Your task to perform on an android device: What's the weather? Image 0: 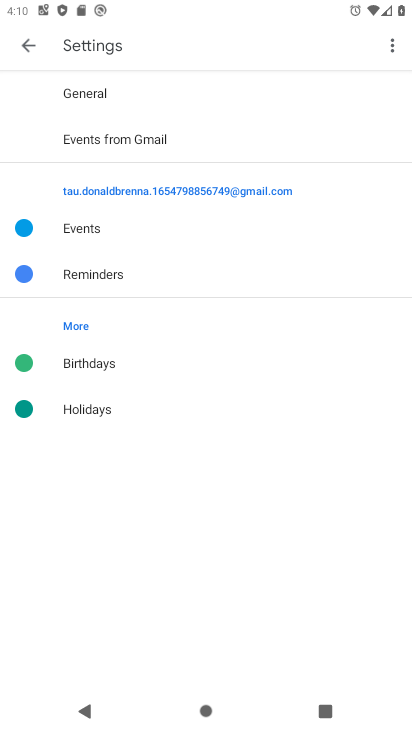
Step 0: press home button
Your task to perform on an android device: What's the weather? Image 1: 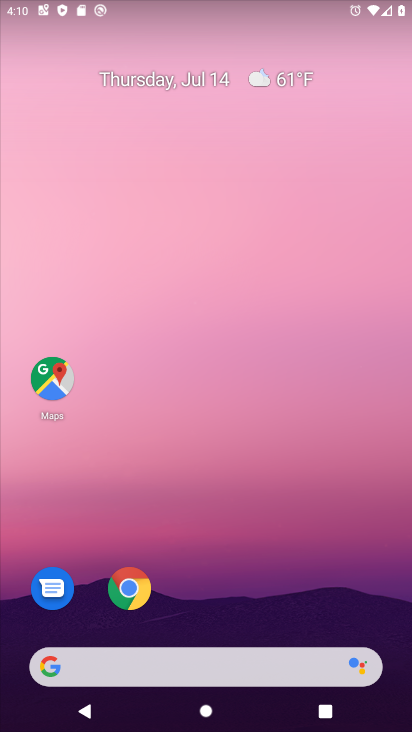
Step 1: click (55, 674)
Your task to perform on an android device: What's the weather? Image 2: 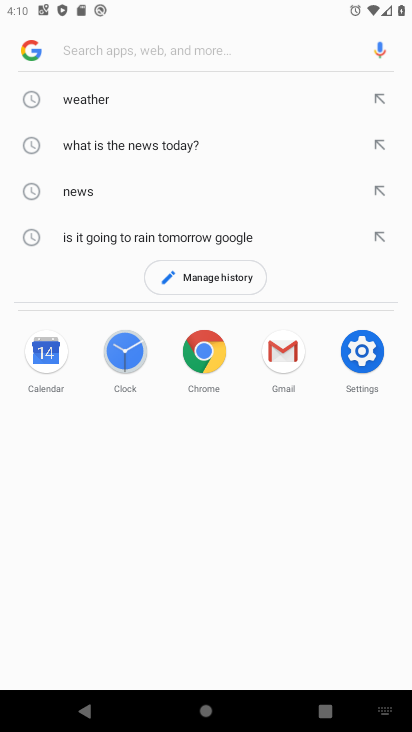
Step 2: click (75, 95)
Your task to perform on an android device: What's the weather? Image 3: 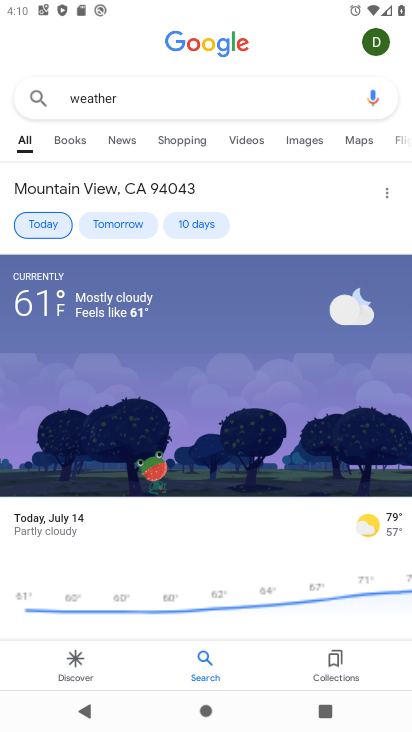
Step 3: task complete